Your task to perform on an android device: Open privacy settings Image 0: 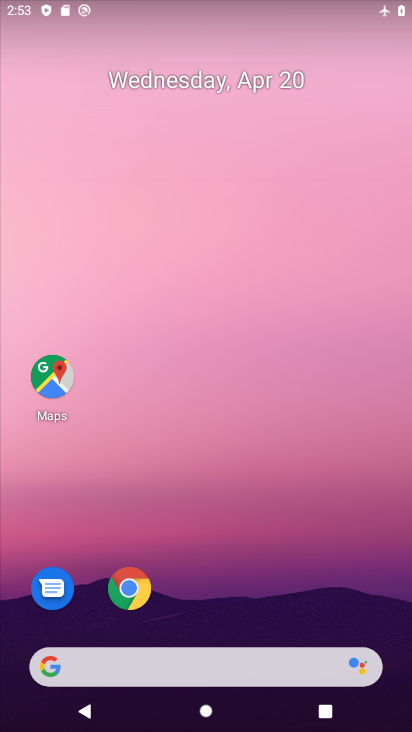
Step 0: drag from (256, 641) to (234, 42)
Your task to perform on an android device: Open privacy settings Image 1: 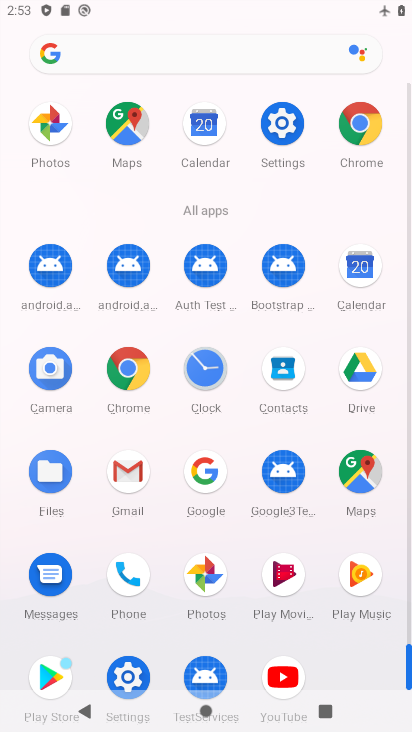
Step 1: drag from (156, 561) to (186, 217)
Your task to perform on an android device: Open privacy settings Image 2: 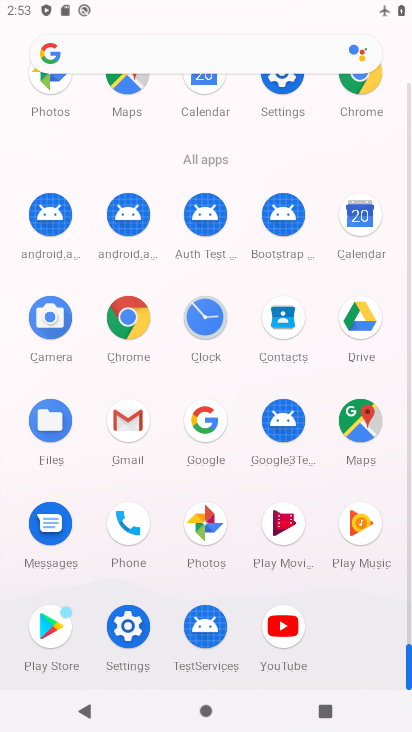
Step 2: click (129, 633)
Your task to perform on an android device: Open privacy settings Image 3: 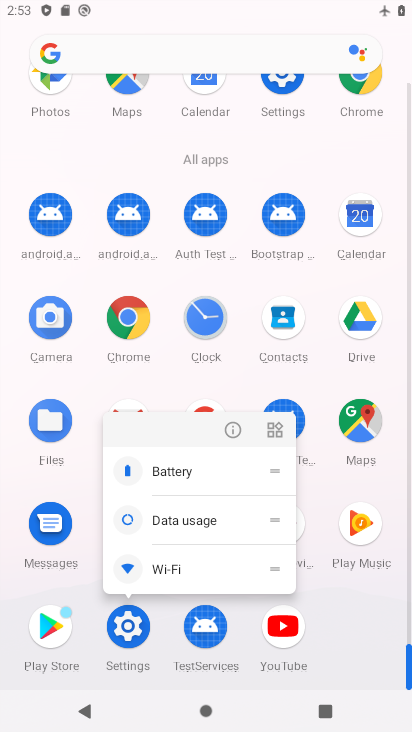
Step 3: click (128, 628)
Your task to perform on an android device: Open privacy settings Image 4: 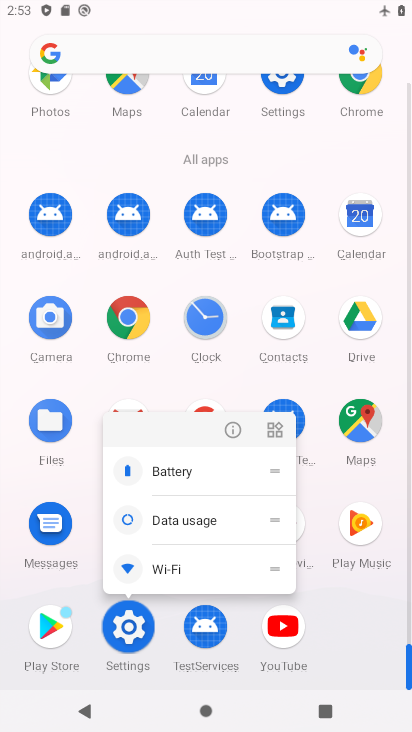
Step 4: click (128, 628)
Your task to perform on an android device: Open privacy settings Image 5: 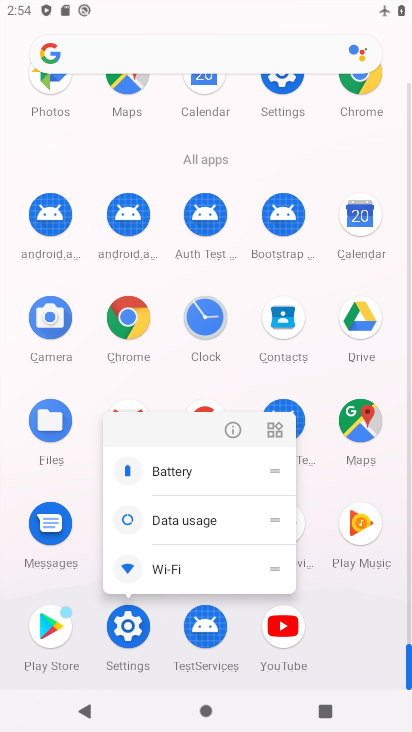
Step 5: click (123, 631)
Your task to perform on an android device: Open privacy settings Image 6: 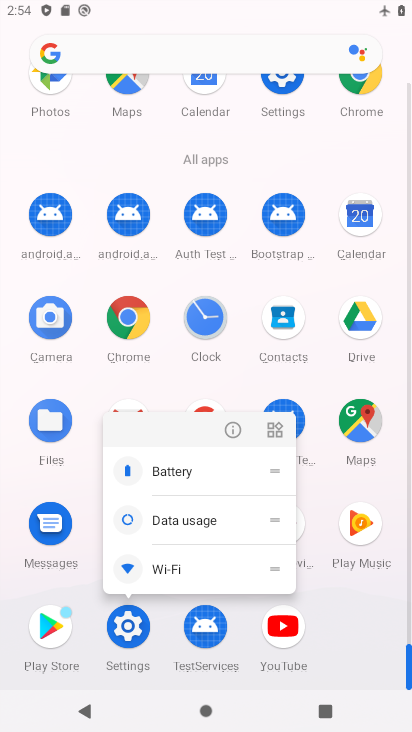
Step 6: click (123, 632)
Your task to perform on an android device: Open privacy settings Image 7: 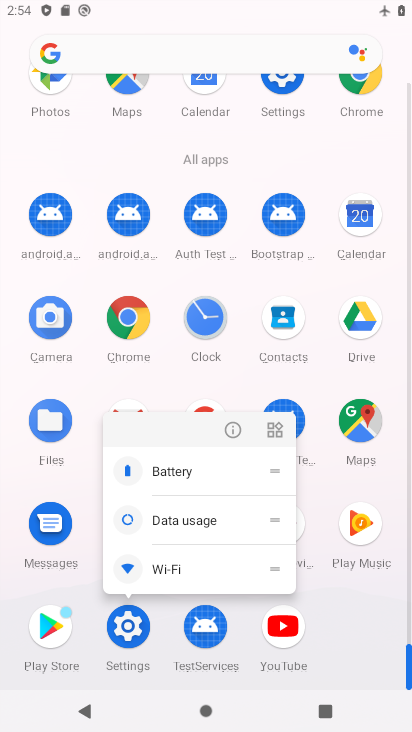
Step 7: task complete